Your task to perform on an android device: manage bookmarks in the chrome app Image 0: 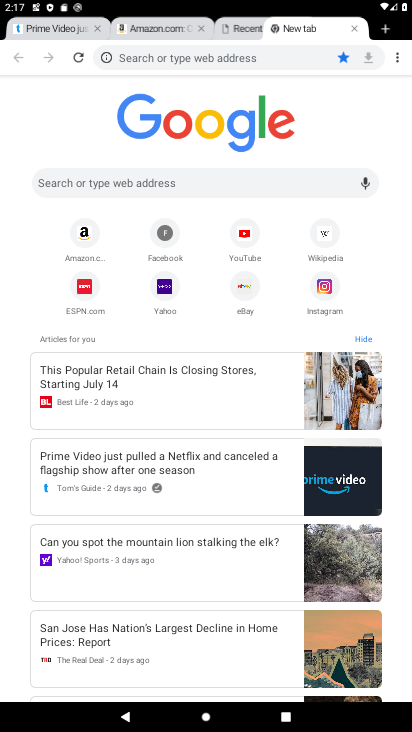
Step 0: click (398, 60)
Your task to perform on an android device: manage bookmarks in the chrome app Image 1: 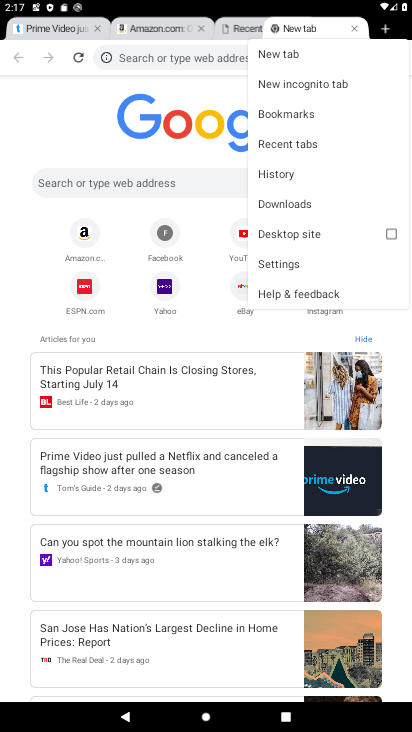
Step 1: click (325, 114)
Your task to perform on an android device: manage bookmarks in the chrome app Image 2: 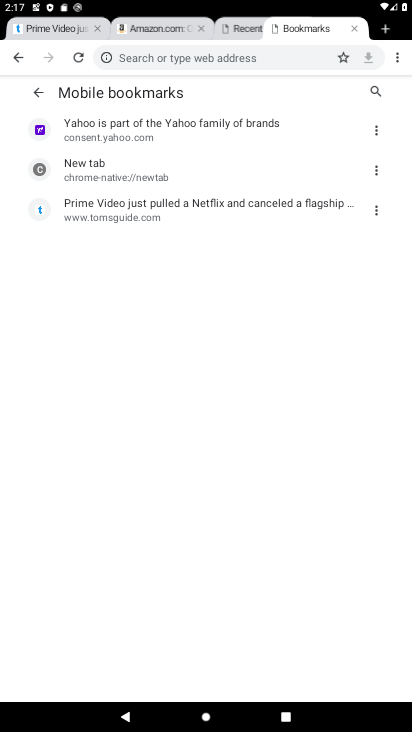
Step 2: click (376, 200)
Your task to perform on an android device: manage bookmarks in the chrome app Image 3: 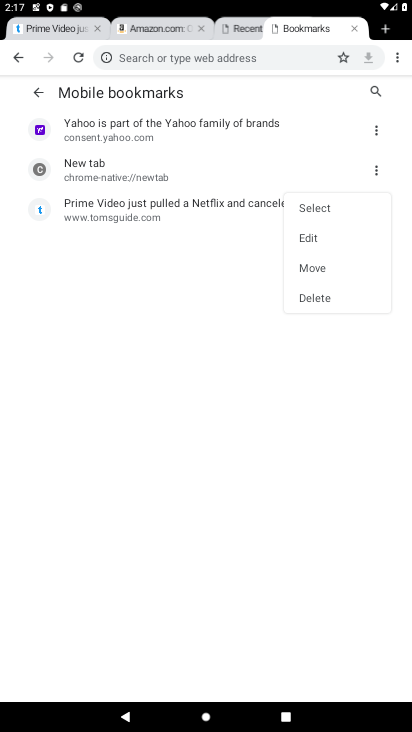
Step 3: click (326, 266)
Your task to perform on an android device: manage bookmarks in the chrome app Image 4: 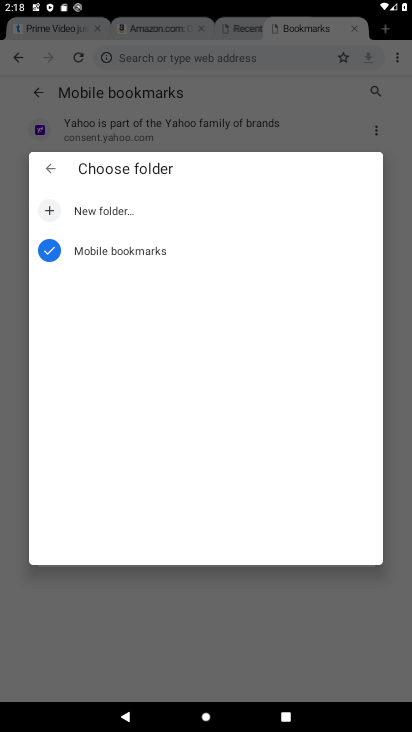
Step 4: click (212, 119)
Your task to perform on an android device: manage bookmarks in the chrome app Image 5: 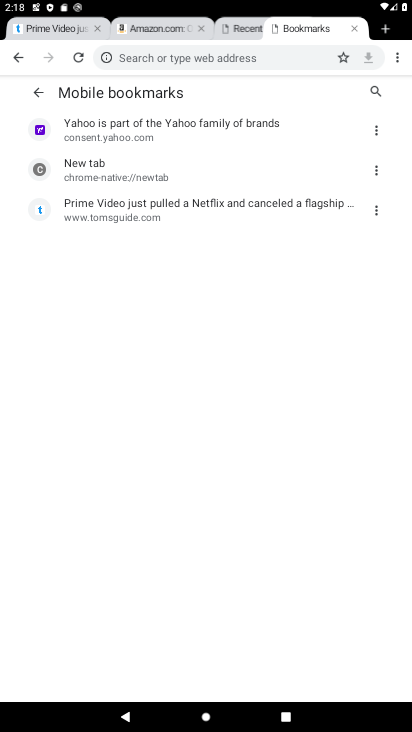
Step 5: click (370, 210)
Your task to perform on an android device: manage bookmarks in the chrome app Image 6: 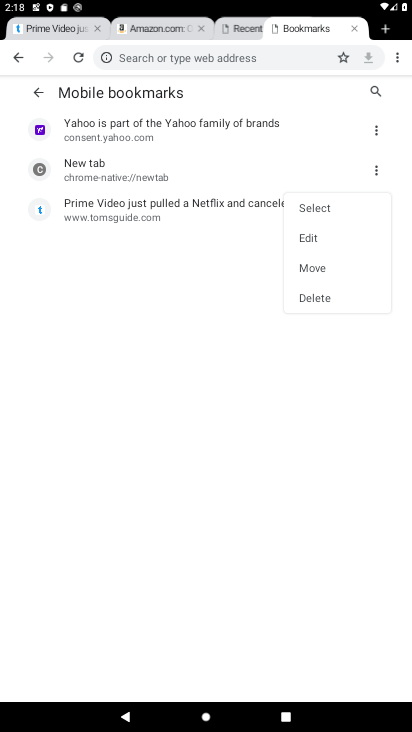
Step 6: click (320, 303)
Your task to perform on an android device: manage bookmarks in the chrome app Image 7: 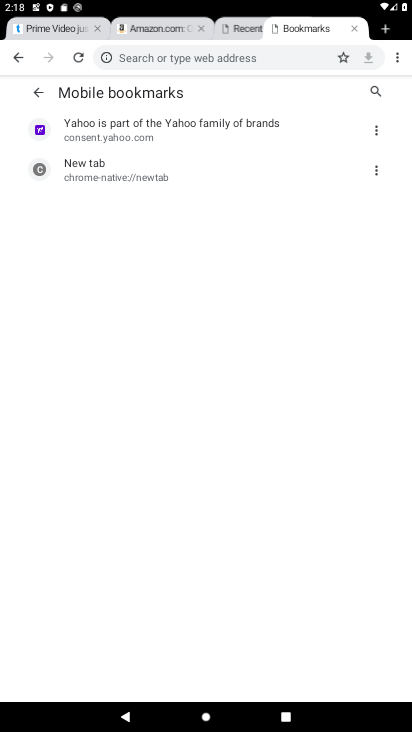
Step 7: task complete